Your task to perform on an android device: Open Yahoo.com Image 0: 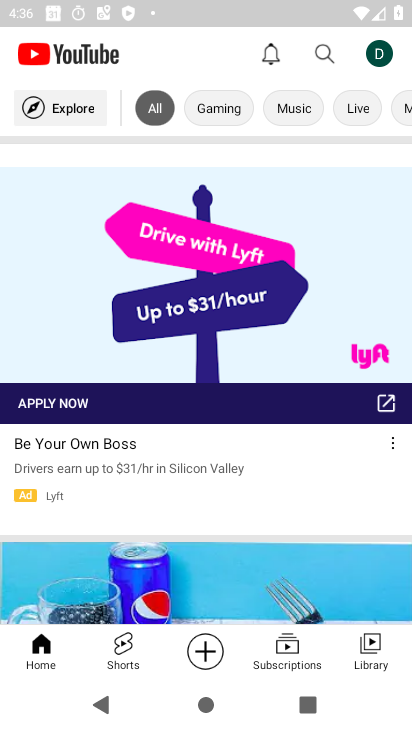
Step 0: press home button
Your task to perform on an android device: Open Yahoo.com Image 1: 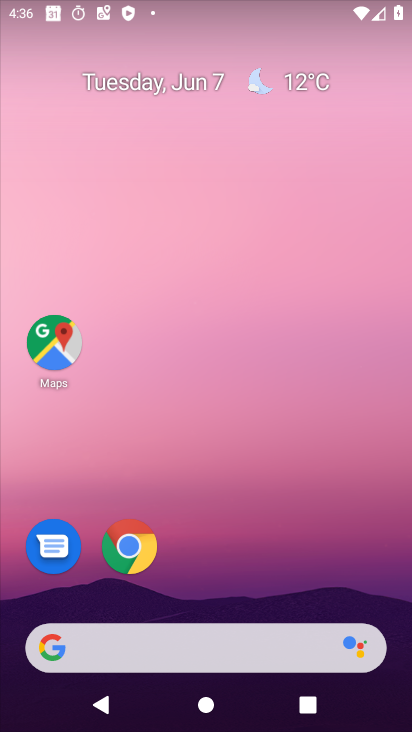
Step 1: click (128, 555)
Your task to perform on an android device: Open Yahoo.com Image 2: 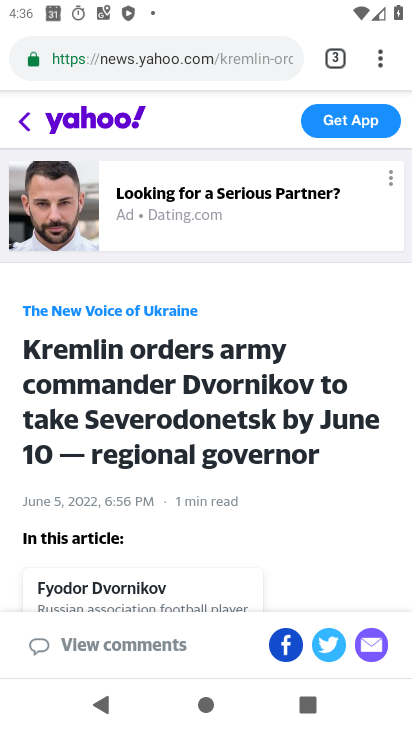
Step 2: task complete